Your task to perform on an android device: make emails show in primary in the gmail app Image 0: 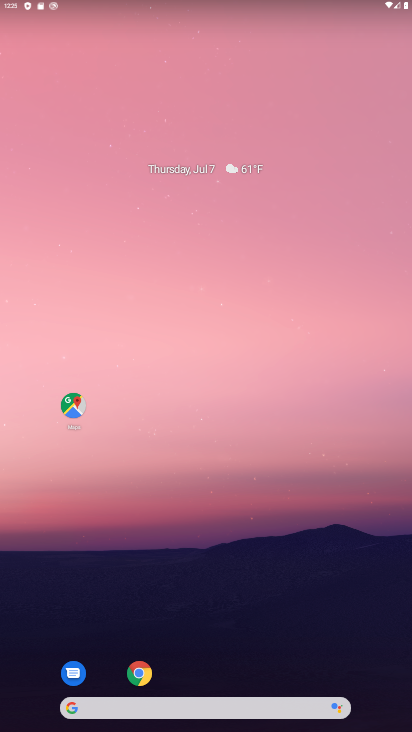
Step 0: drag from (195, 666) to (176, 120)
Your task to perform on an android device: make emails show in primary in the gmail app Image 1: 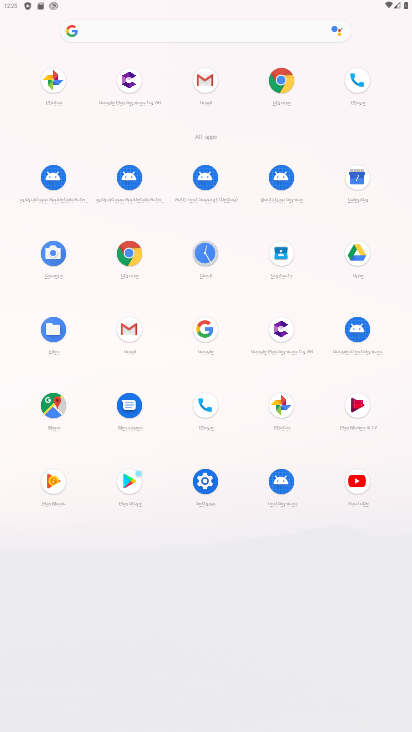
Step 1: click (210, 84)
Your task to perform on an android device: make emails show in primary in the gmail app Image 2: 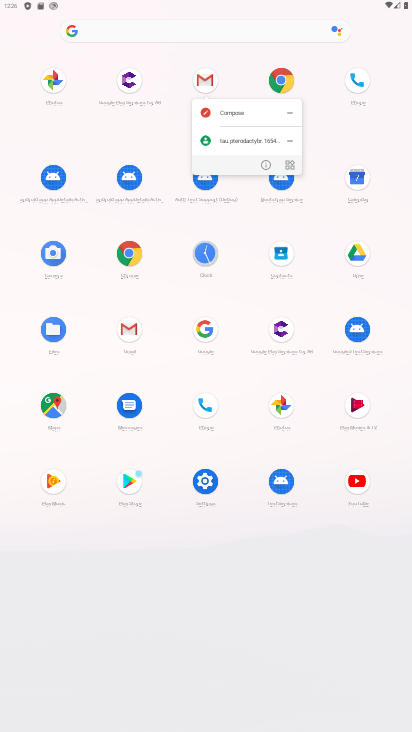
Step 2: click (128, 562)
Your task to perform on an android device: make emails show in primary in the gmail app Image 3: 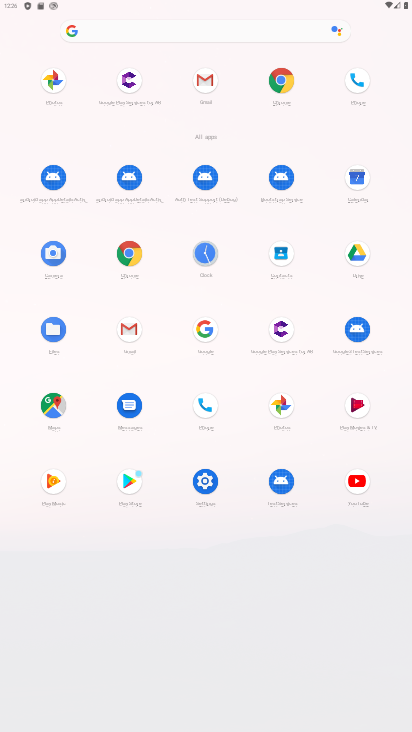
Step 3: click (201, 84)
Your task to perform on an android device: make emails show in primary in the gmail app Image 4: 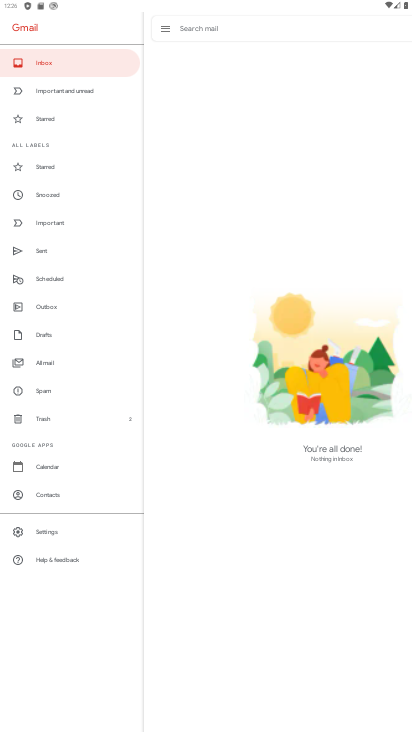
Step 4: click (40, 539)
Your task to perform on an android device: make emails show in primary in the gmail app Image 5: 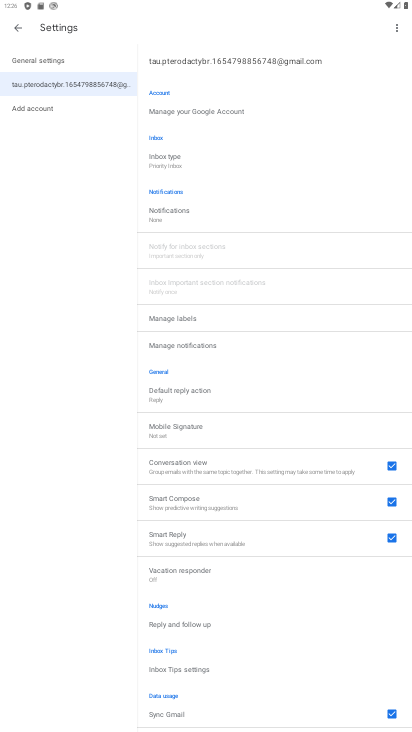
Step 5: task complete